Your task to perform on an android device: Open Amazon Image 0: 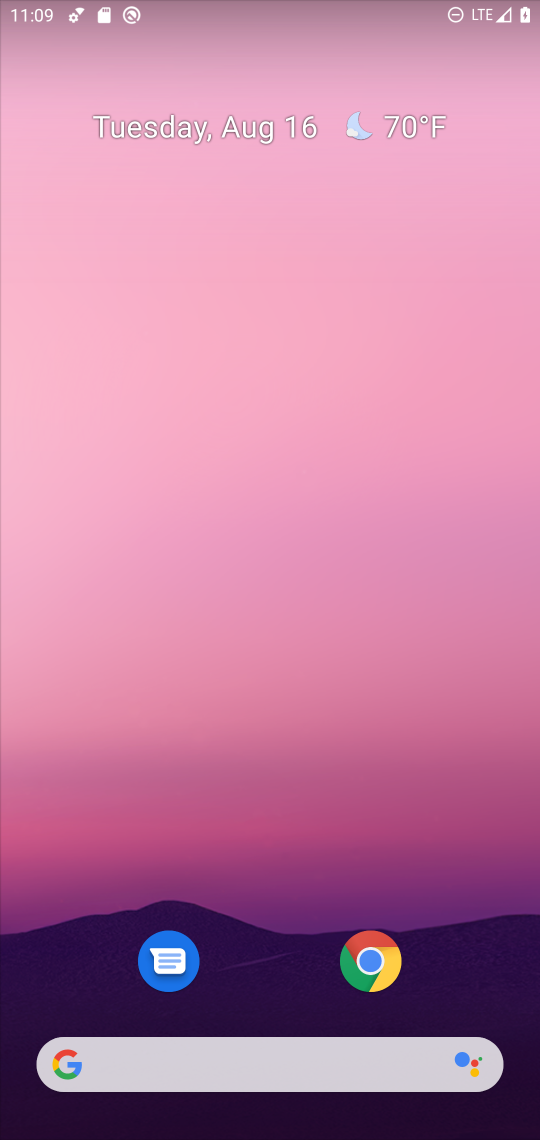
Step 0: click (373, 952)
Your task to perform on an android device: Open Amazon Image 1: 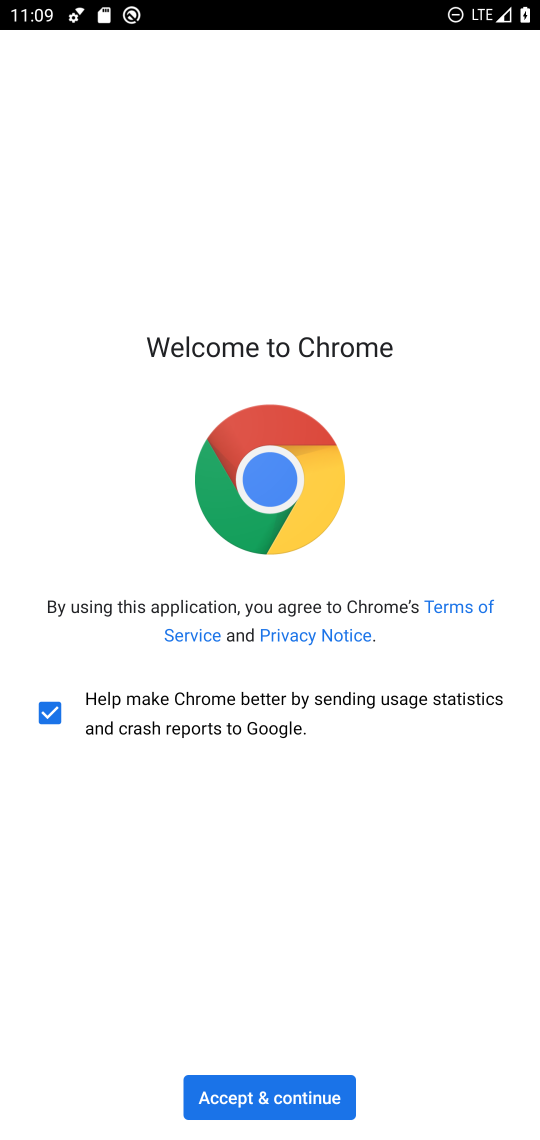
Step 1: click (274, 1088)
Your task to perform on an android device: Open Amazon Image 2: 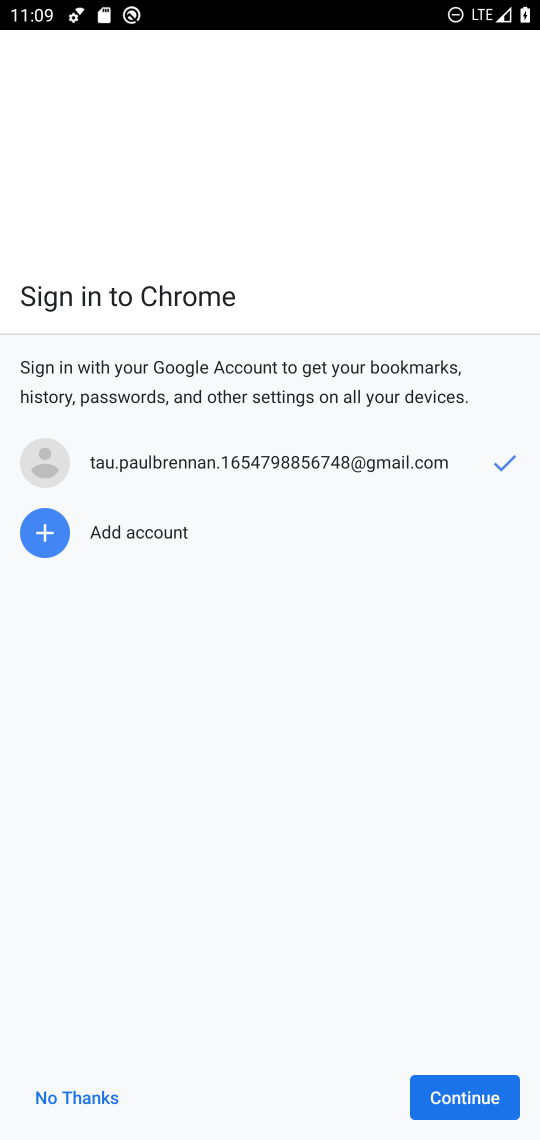
Step 2: click (444, 1110)
Your task to perform on an android device: Open Amazon Image 3: 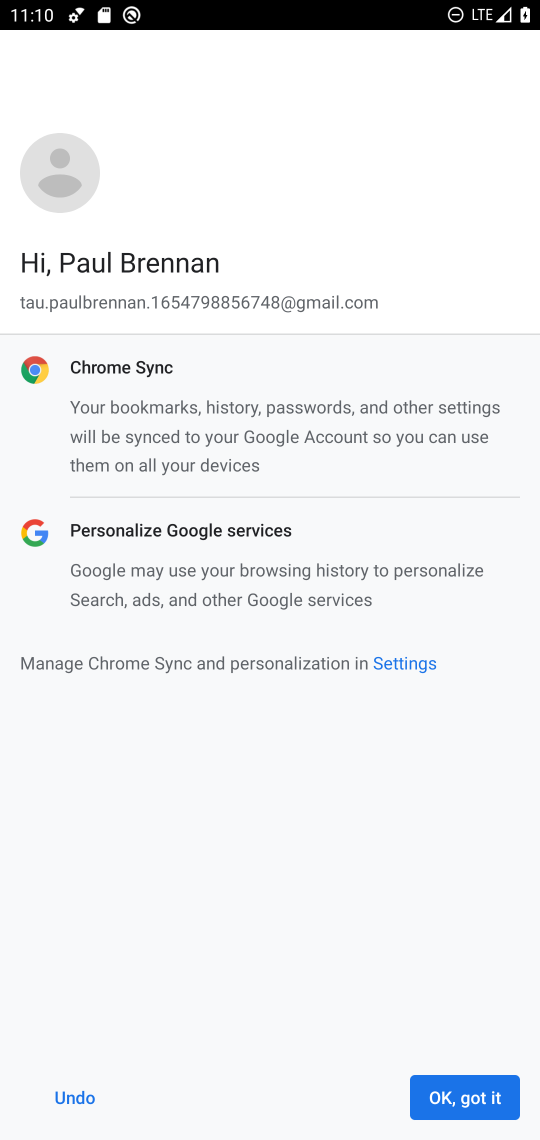
Step 3: click (444, 1110)
Your task to perform on an android device: Open Amazon Image 4: 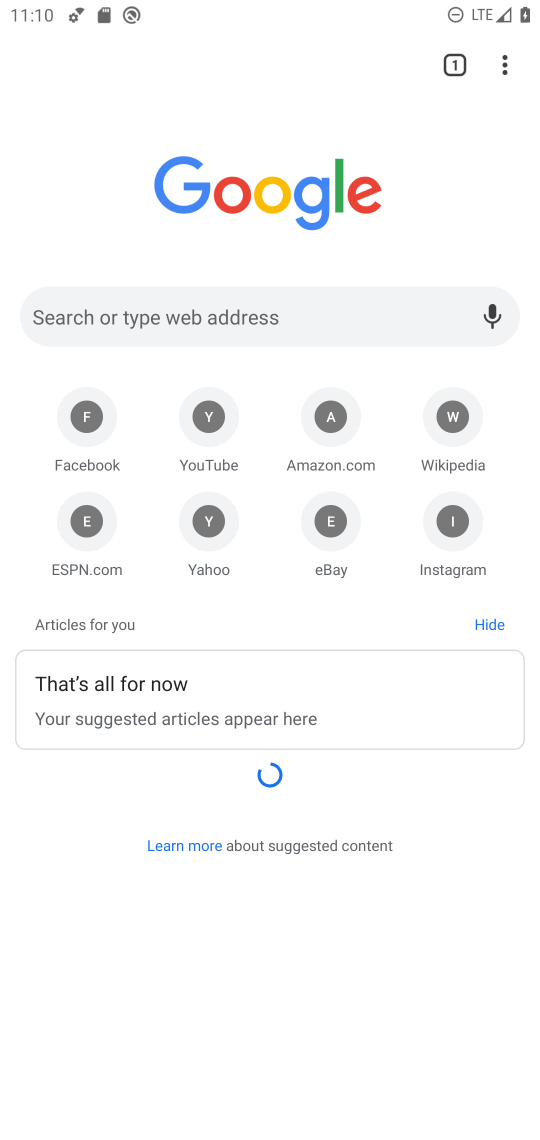
Step 4: click (306, 436)
Your task to perform on an android device: Open Amazon Image 5: 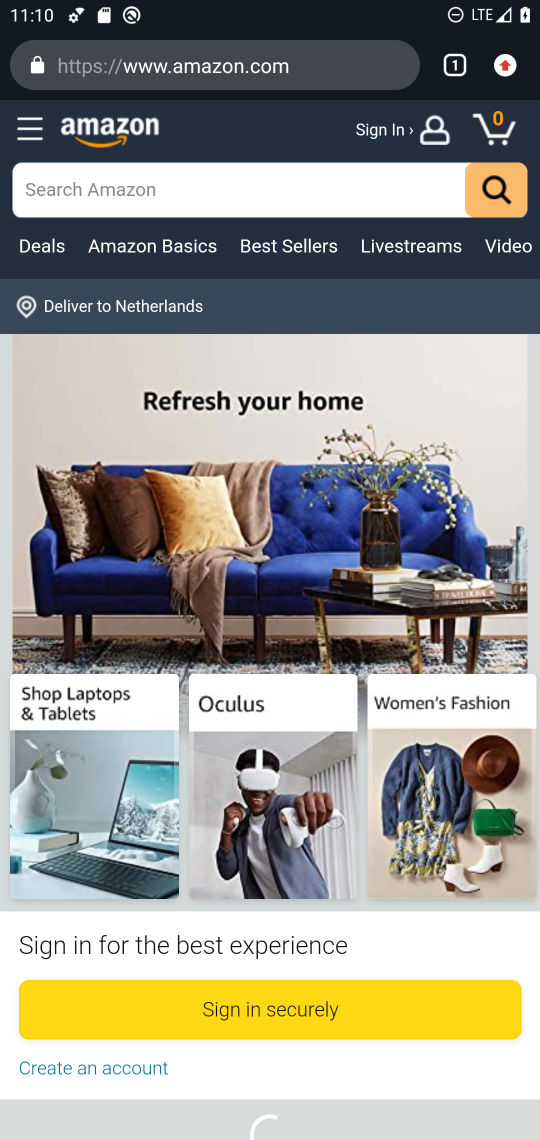
Step 5: task complete